Your task to perform on an android device: turn on wifi Image 0: 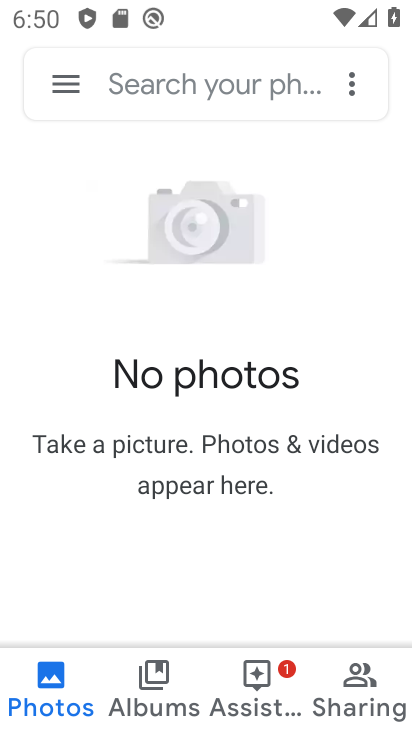
Step 0: press back button
Your task to perform on an android device: turn on wifi Image 1: 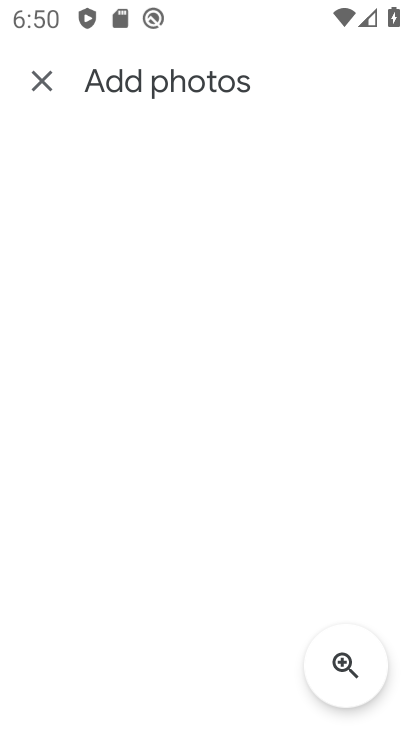
Step 1: task complete